Your task to perform on an android device: Check the news Image 0: 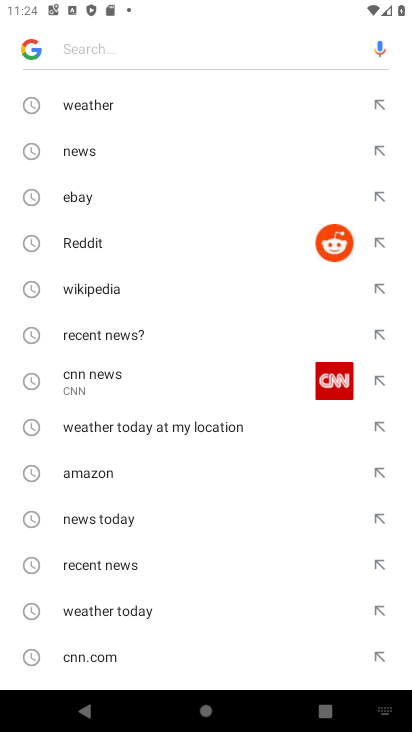
Step 0: click (29, 57)
Your task to perform on an android device: Check the news Image 1: 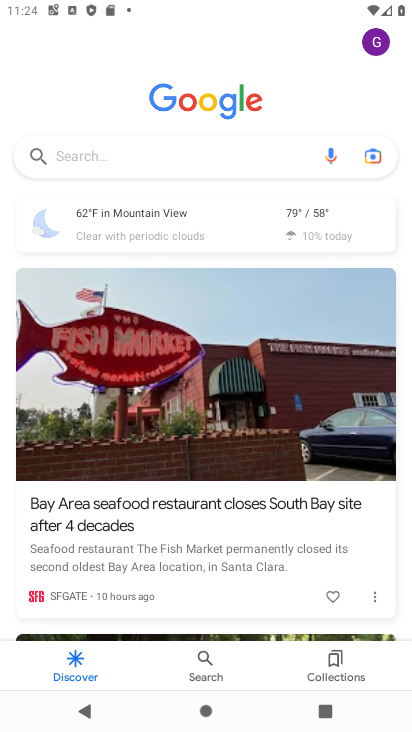
Step 1: task complete